Your task to perform on an android device: read, delete, or share a saved page in the chrome app Image 0: 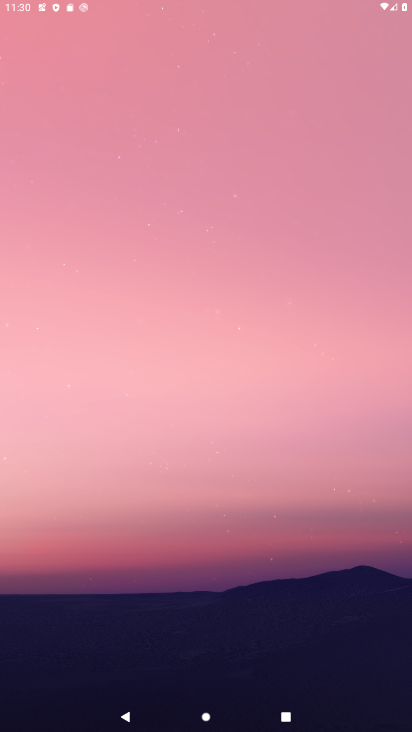
Step 0: press home button
Your task to perform on an android device: read, delete, or share a saved page in the chrome app Image 1: 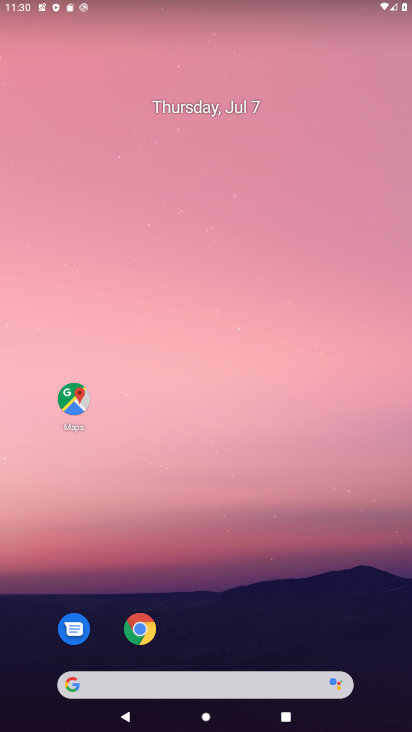
Step 1: click (140, 631)
Your task to perform on an android device: read, delete, or share a saved page in the chrome app Image 2: 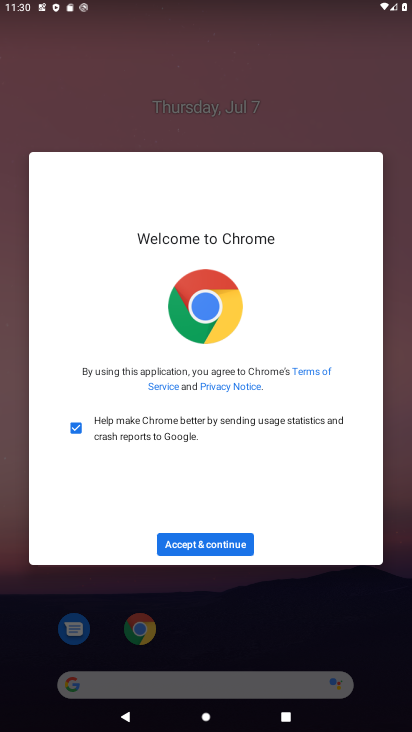
Step 2: click (208, 544)
Your task to perform on an android device: read, delete, or share a saved page in the chrome app Image 3: 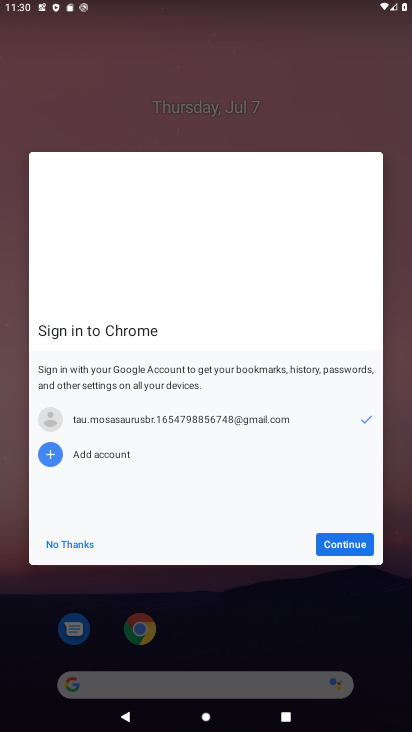
Step 3: click (348, 544)
Your task to perform on an android device: read, delete, or share a saved page in the chrome app Image 4: 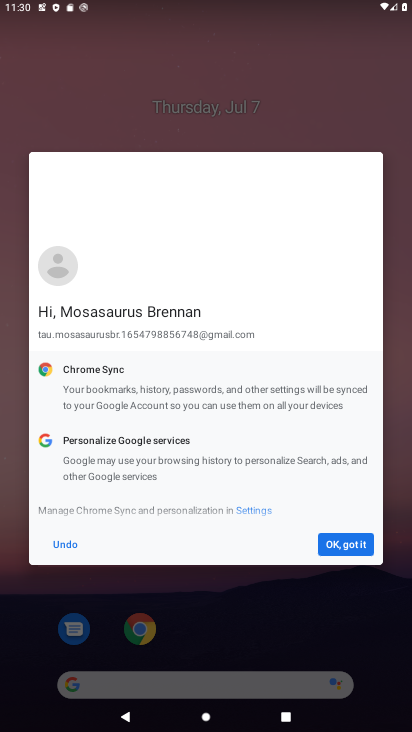
Step 4: click (347, 544)
Your task to perform on an android device: read, delete, or share a saved page in the chrome app Image 5: 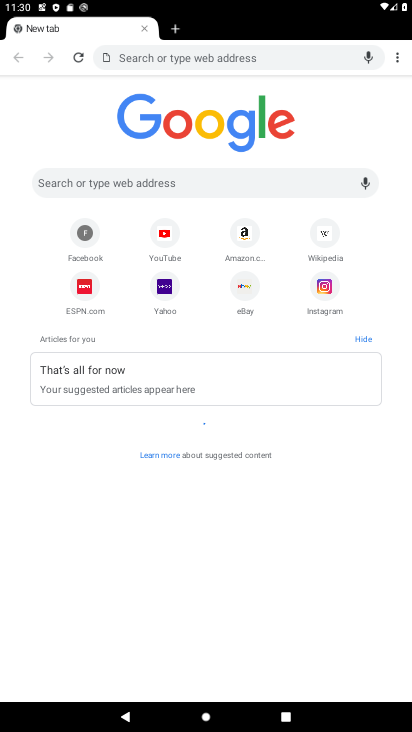
Step 5: click (395, 63)
Your task to perform on an android device: read, delete, or share a saved page in the chrome app Image 6: 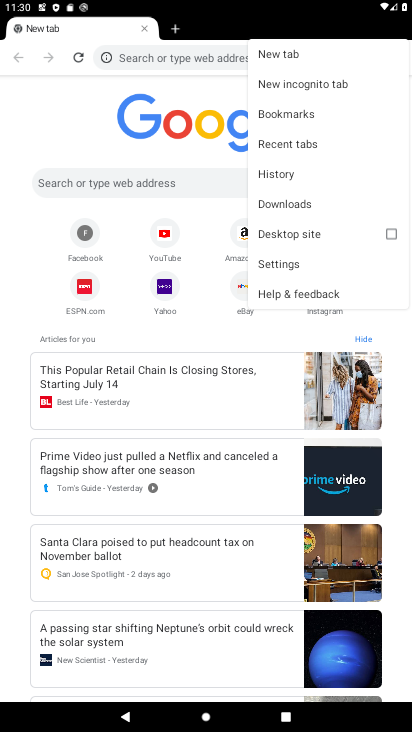
Step 6: click (277, 200)
Your task to perform on an android device: read, delete, or share a saved page in the chrome app Image 7: 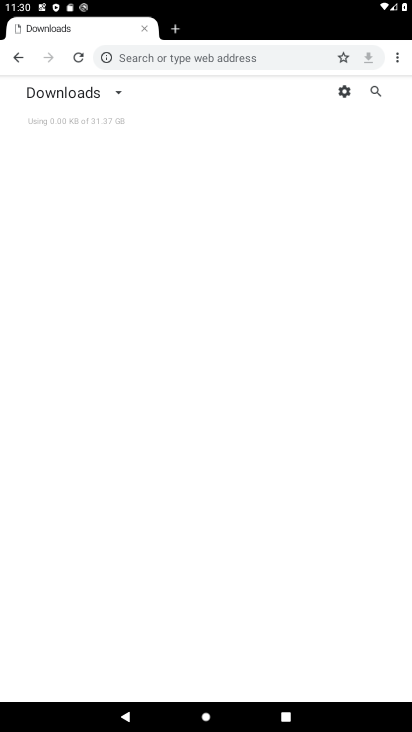
Step 7: click (112, 86)
Your task to perform on an android device: read, delete, or share a saved page in the chrome app Image 8: 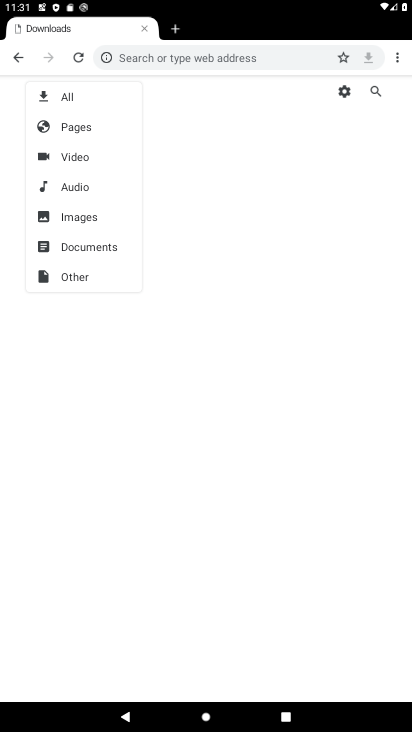
Step 8: click (69, 127)
Your task to perform on an android device: read, delete, or share a saved page in the chrome app Image 9: 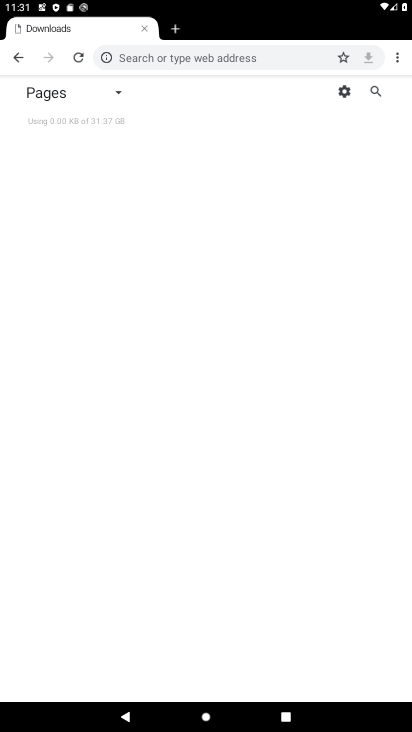
Step 9: task complete